Your task to perform on an android device: Open network settings Image 0: 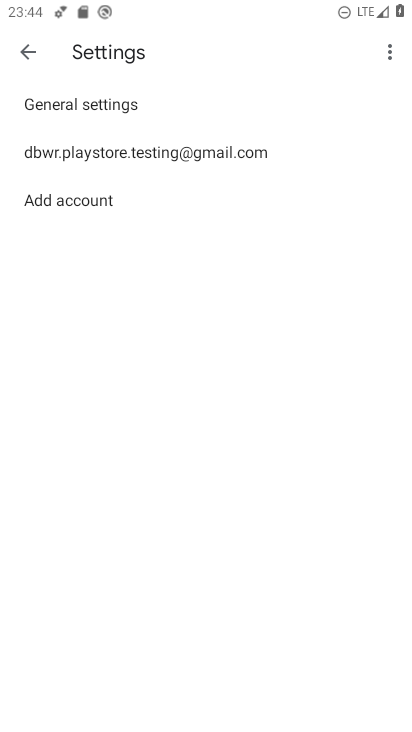
Step 0: press home button
Your task to perform on an android device: Open network settings Image 1: 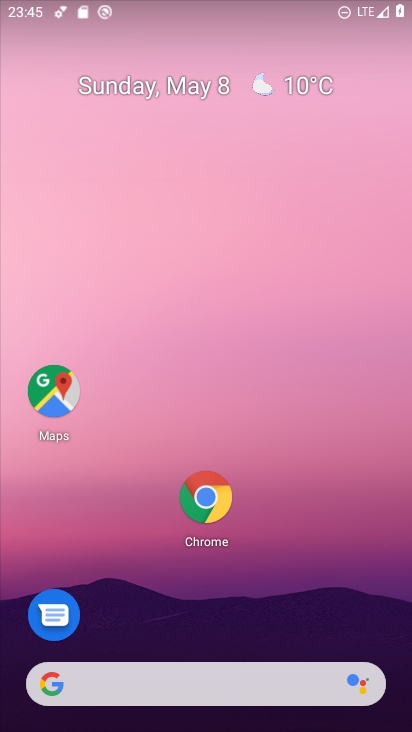
Step 1: drag from (328, 583) to (331, 48)
Your task to perform on an android device: Open network settings Image 2: 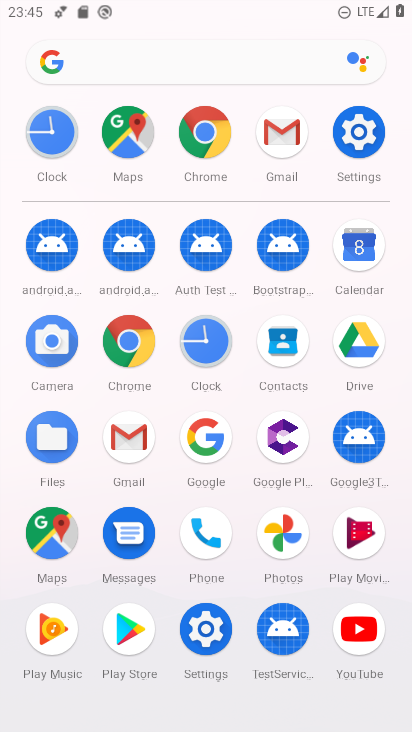
Step 2: click (357, 113)
Your task to perform on an android device: Open network settings Image 3: 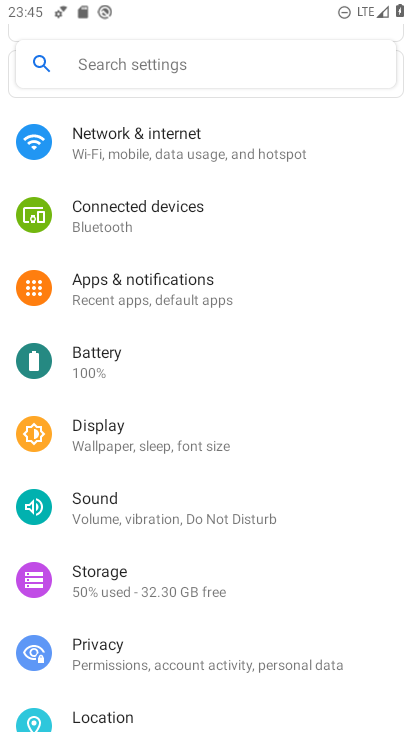
Step 3: click (214, 140)
Your task to perform on an android device: Open network settings Image 4: 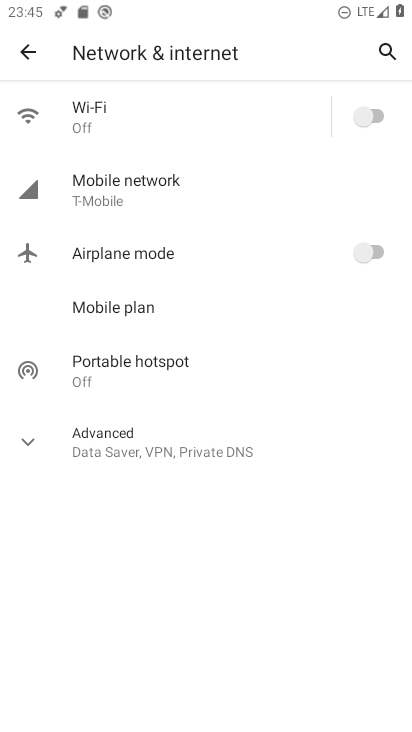
Step 4: task complete